Your task to perform on an android device: change the clock display to digital Image 0: 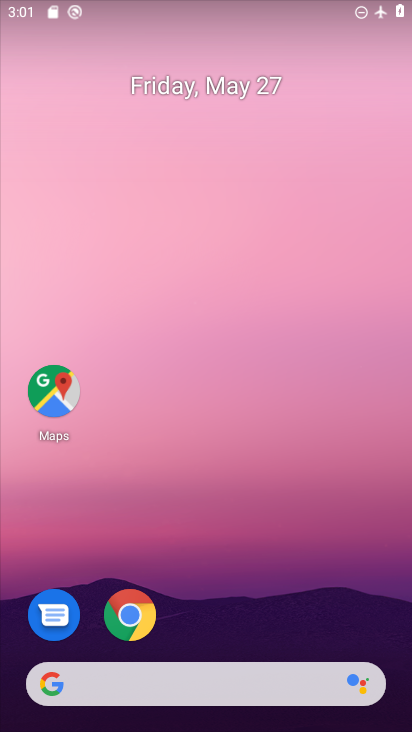
Step 0: drag from (303, 442) to (227, 2)
Your task to perform on an android device: change the clock display to digital Image 1: 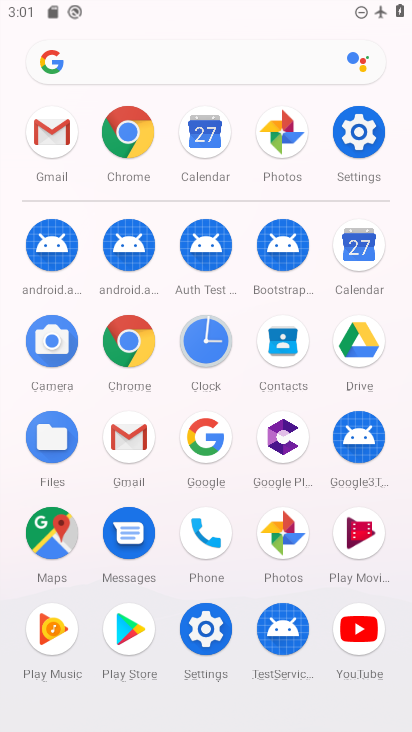
Step 1: click (216, 342)
Your task to perform on an android device: change the clock display to digital Image 2: 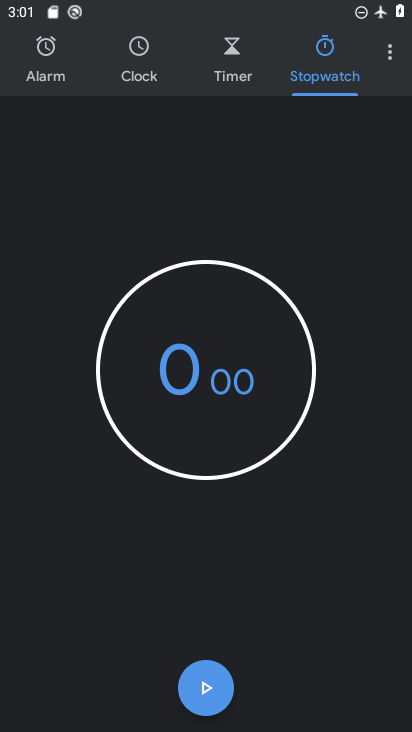
Step 2: click (382, 56)
Your task to perform on an android device: change the clock display to digital Image 3: 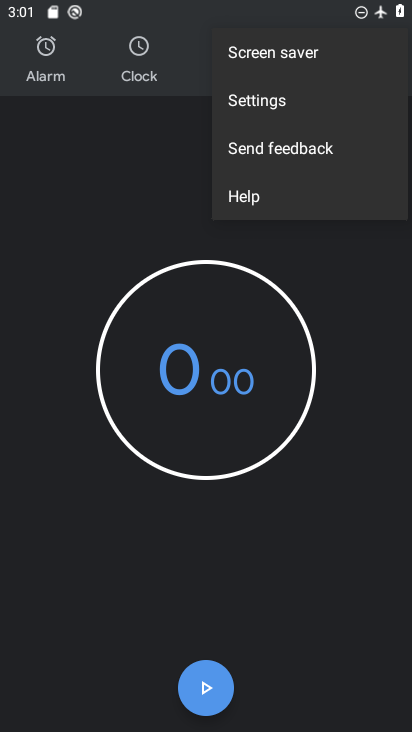
Step 3: click (300, 103)
Your task to perform on an android device: change the clock display to digital Image 4: 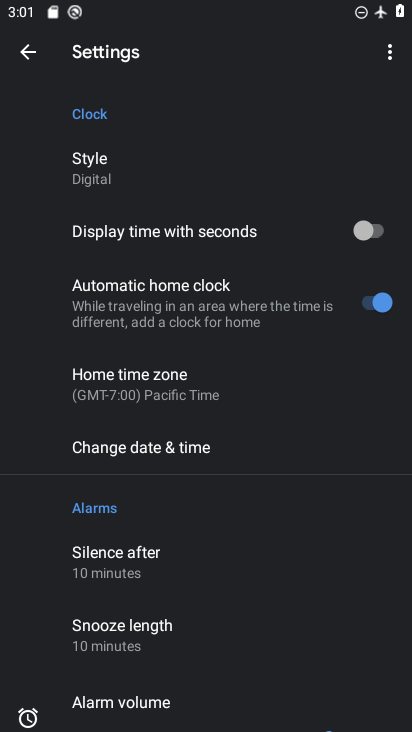
Step 4: task complete